Your task to perform on an android device: Search for Mexican restaurants on Maps Image 0: 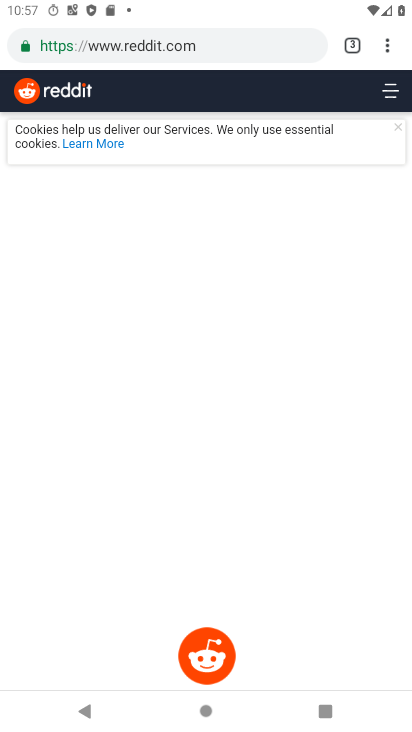
Step 0: press home button
Your task to perform on an android device: Search for Mexican restaurants on Maps Image 1: 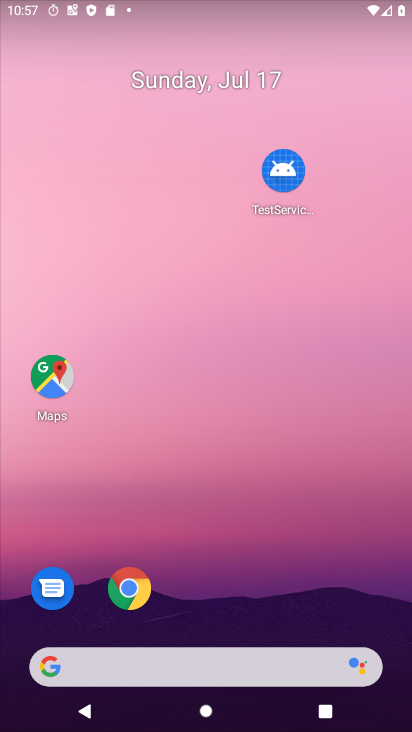
Step 1: drag from (261, 655) to (326, 141)
Your task to perform on an android device: Search for Mexican restaurants on Maps Image 2: 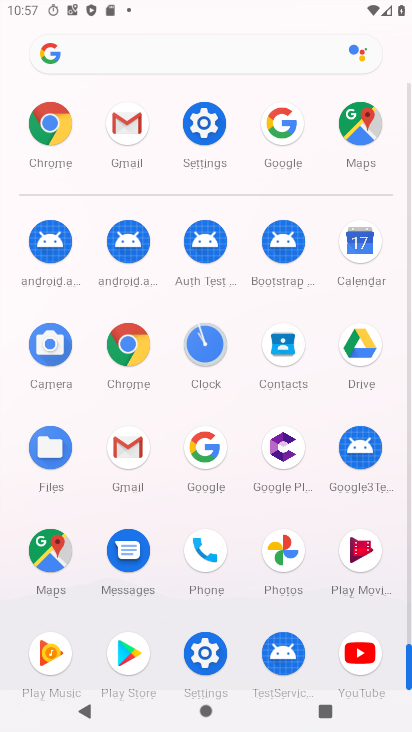
Step 2: click (56, 562)
Your task to perform on an android device: Search for Mexican restaurants on Maps Image 3: 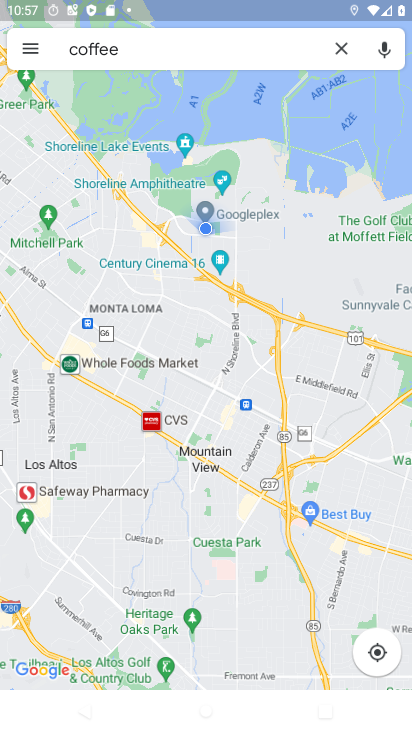
Step 3: click (343, 51)
Your task to perform on an android device: Search for Mexican restaurants on Maps Image 4: 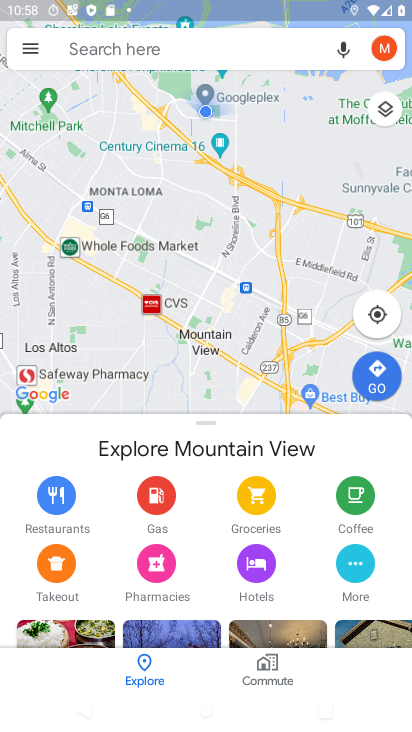
Step 4: click (225, 55)
Your task to perform on an android device: Search for Mexican restaurants on Maps Image 5: 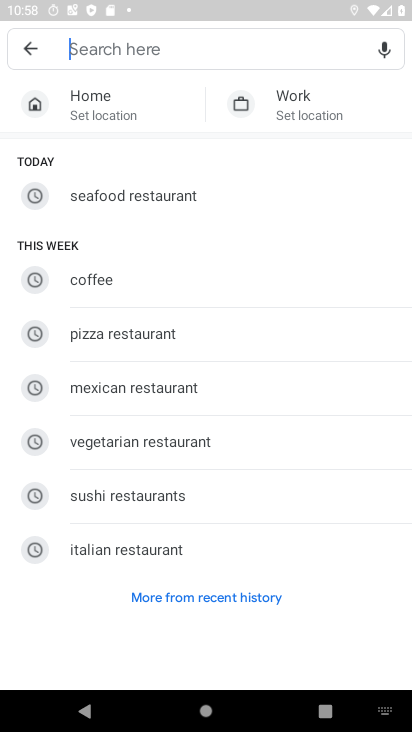
Step 5: click (154, 394)
Your task to perform on an android device: Search for Mexican restaurants on Maps Image 6: 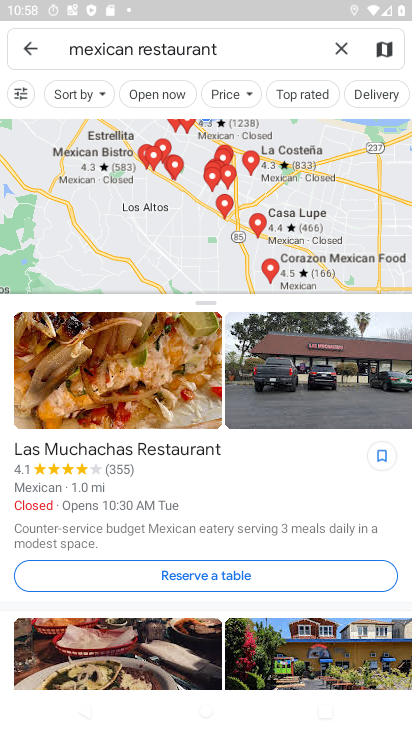
Step 6: task complete